Your task to perform on an android device: Search for sushi restaurants on Maps Image 0: 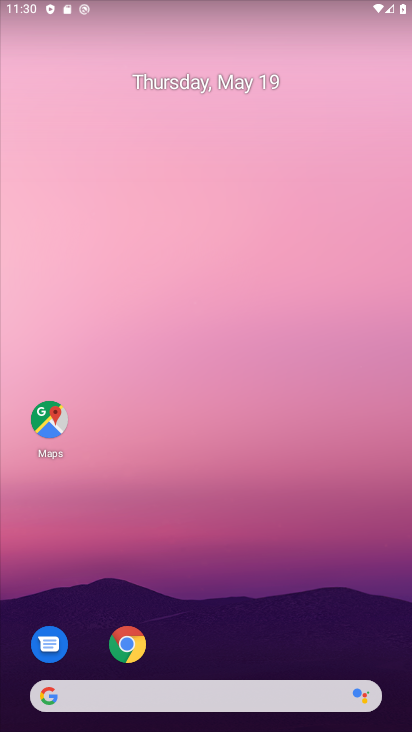
Step 0: click (45, 420)
Your task to perform on an android device: Search for sushi restaurants on Maps Image 1: 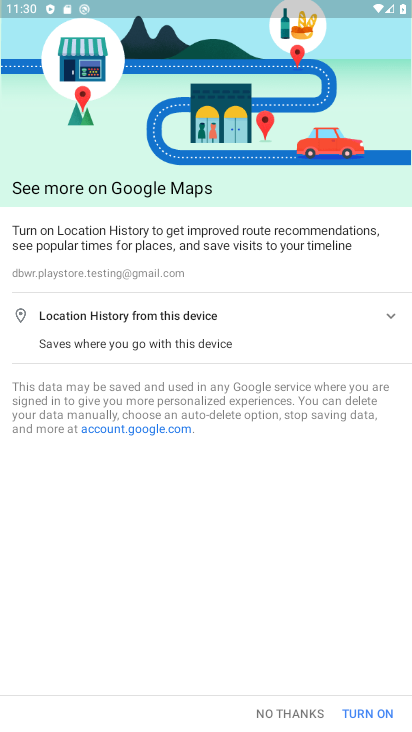
Step 1: click (388, 710)
Your task to perform on an android device: Search for sushi restaurants on Maps Image 2: 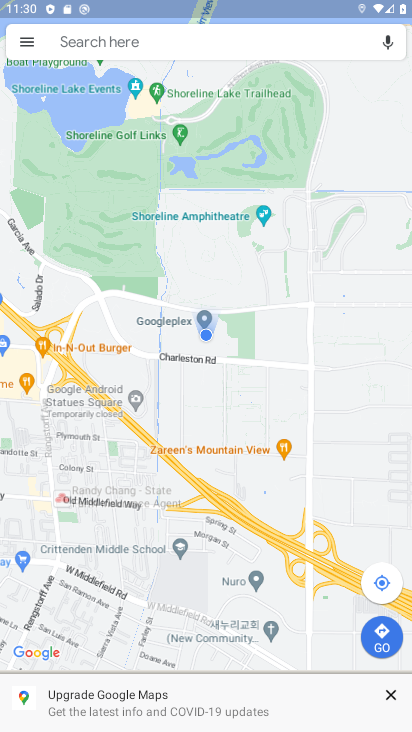
Step 2: click (379, 708)
Your task to perform on an android device: Search for sushi restaurants on Maps Image 3: 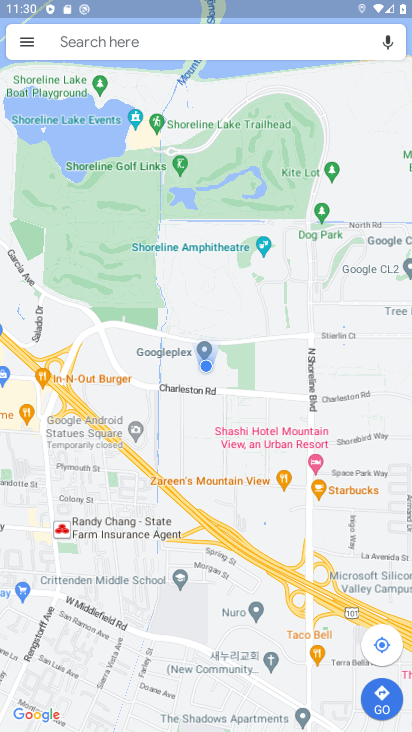
Step 3: click (164, 39)
Your task to perform on an android device: Search for sushi restaurants on Maps Image 4: 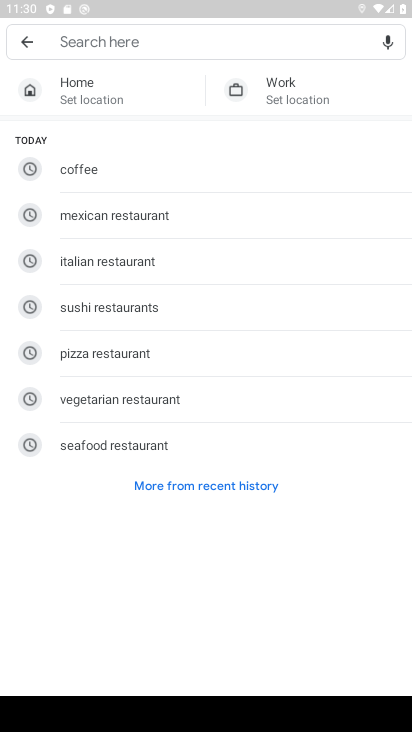
Step 4: click (127, 316)
Your task to perform on an android device: Search for sushi restaurants on Maps Image 5: 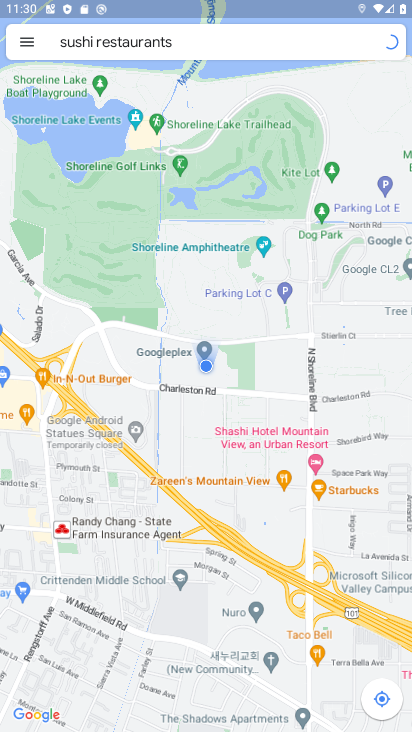
Step 5: task complete